Your task to perform on an android device: Do I have any events this weekend? Image 0: 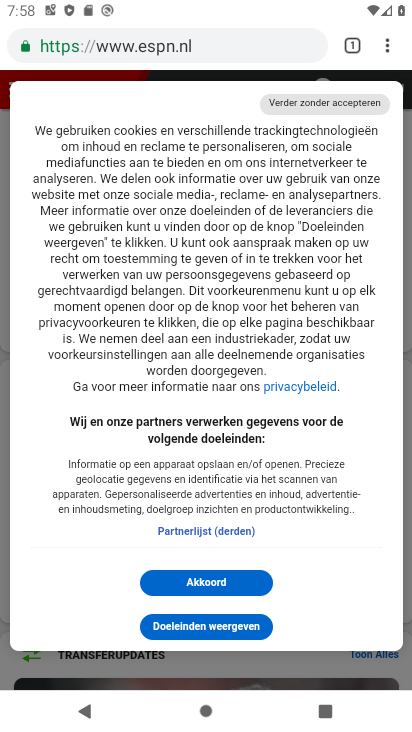
Step 0: press home button
Your task to perform on an android device: Do I have any events this weekend? Image 1: 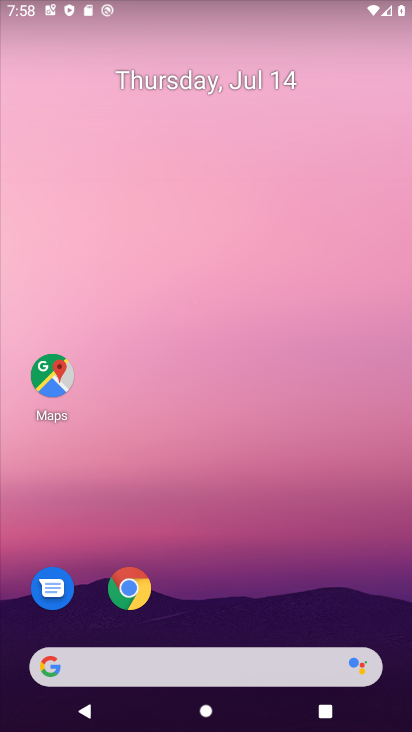
Step 1: drag from (317, 602) to (262, 128)
Your task to perform on an android device: Do I have any events this weekend? Image 2: 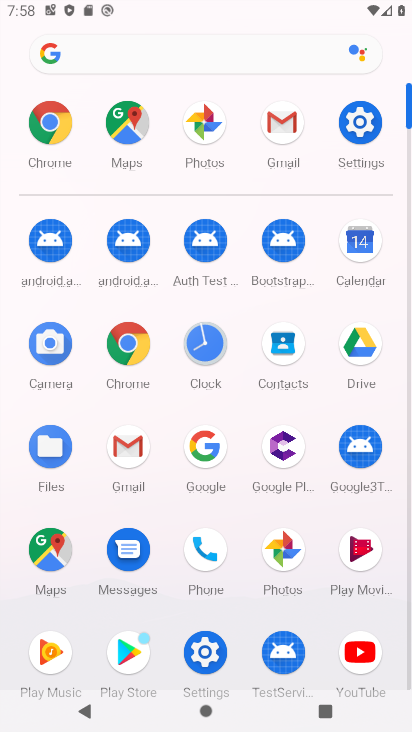
Step 2: click (354, 242)
Your task to perform on an android device: Do I have any events this weekend? Image 3: 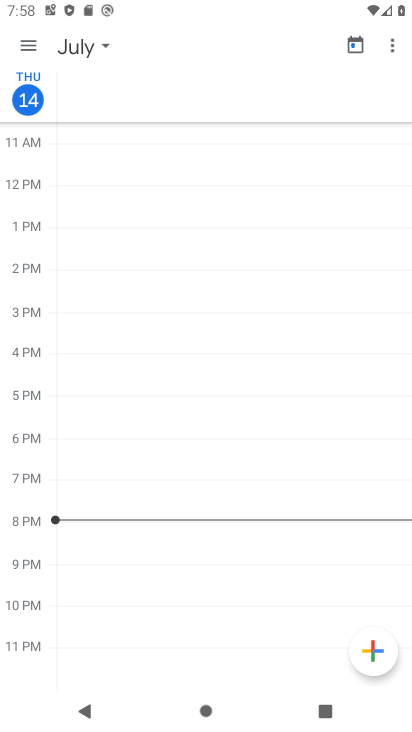
Step 3: click (97, 43)
Your task to perform on an android device: Do I have any events this weekend? Image 4: 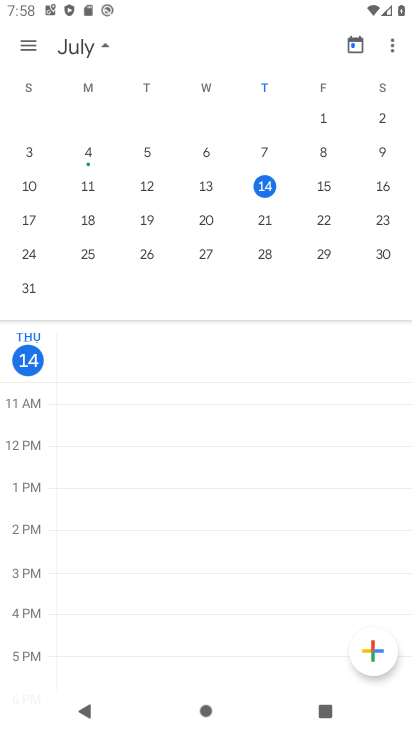
Step 4: click (22, 43)
Your task to perform on an android device: Do I have any events this weekend? Image 5: 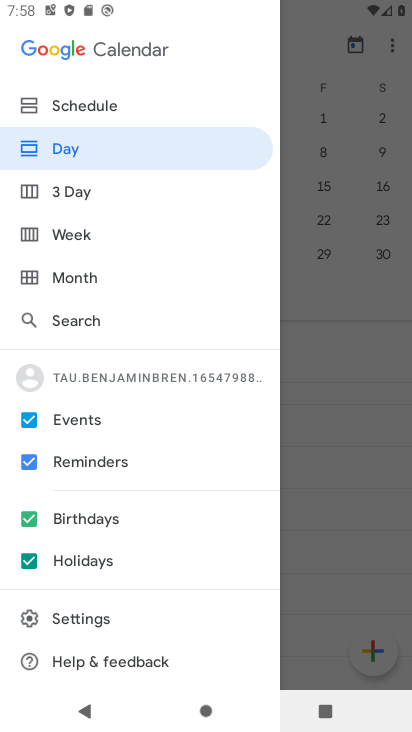
Step 5: click (55, 195)
Your task to perform on an android device: Do I have any events this weekend? Image 6: 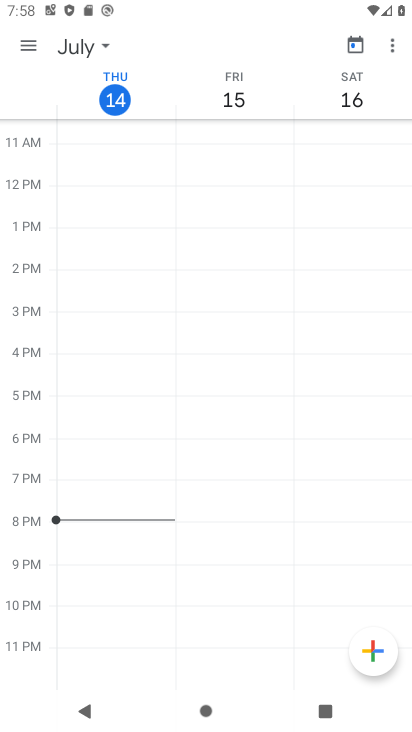
Step 6: task complete